Your task to perform on an android device: all mails in gmail Image 0: 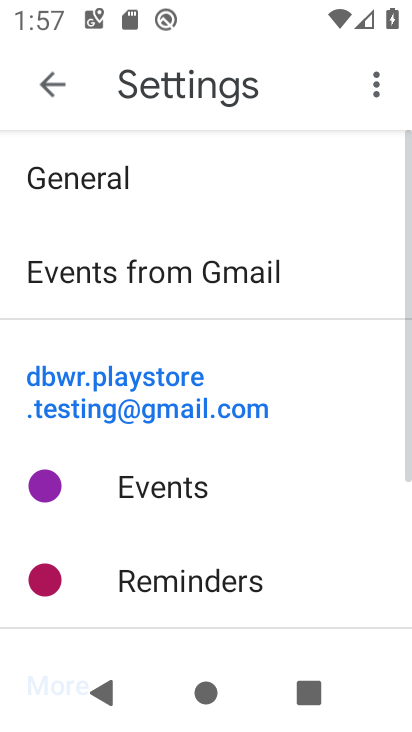
Step 0: press home button
Your task to perform on an android device: all mails in gmail Image 1: 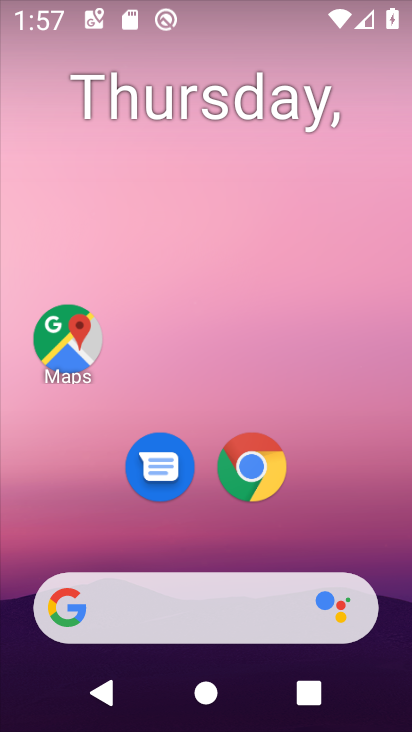
Step 1: drag from (204, 554) to (142, 0)
Your task to perform on an android device: all mails in gmail Image 2: 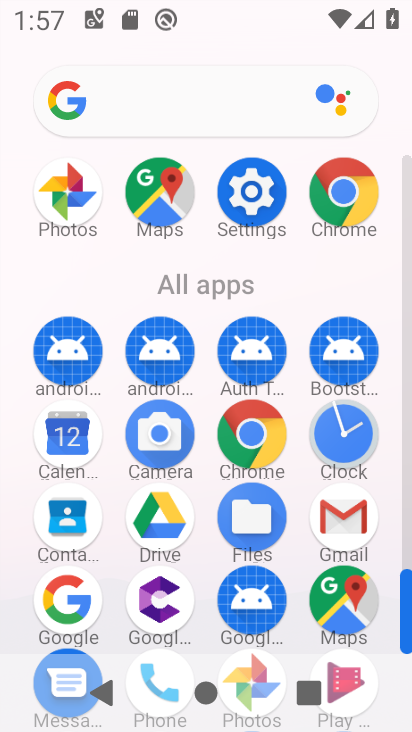
Step 2: click (331, 529)
Your task to perform on an android device: all mails in gmail Image 3: 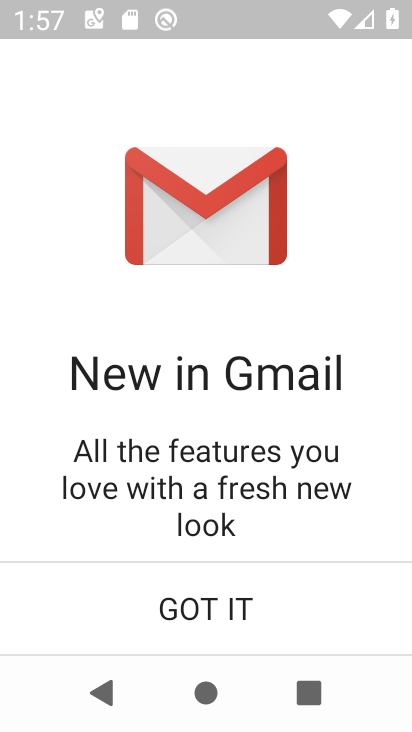
Step 3: click (228, 598)
Your task to perform on an android device: all mails in gmail Image 4: 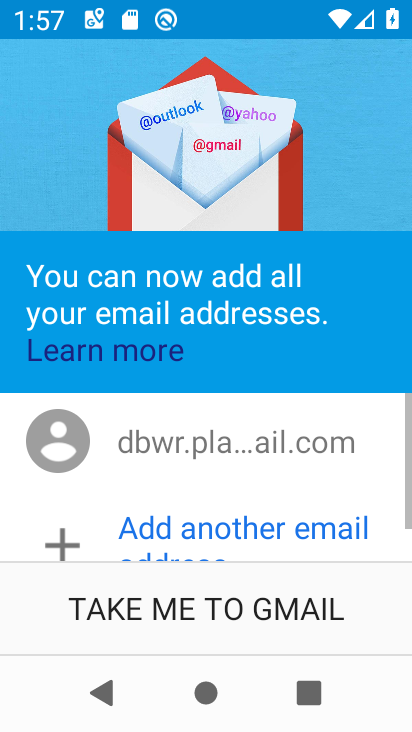
Step 4: click (234, 598)
Your task to perform on an android device: all mails in gmail Image 5: 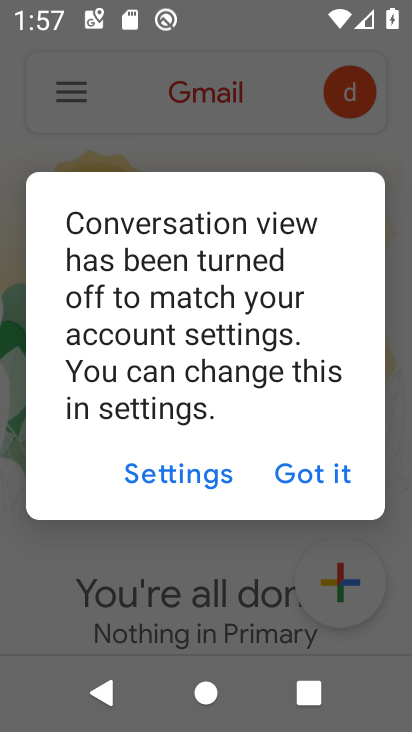
Step 5: click (335, 474)
Your task to perform on an android device: all mails in gmail Image 6: 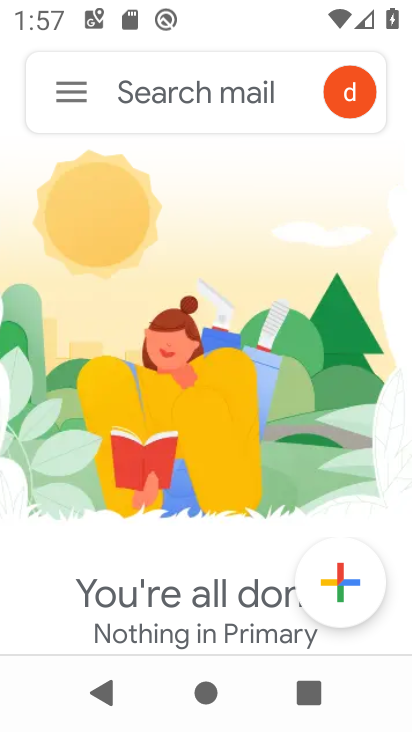
Step 6: click (62, 87)
Your task to perform on an android device: all mails in gmail Image 7: 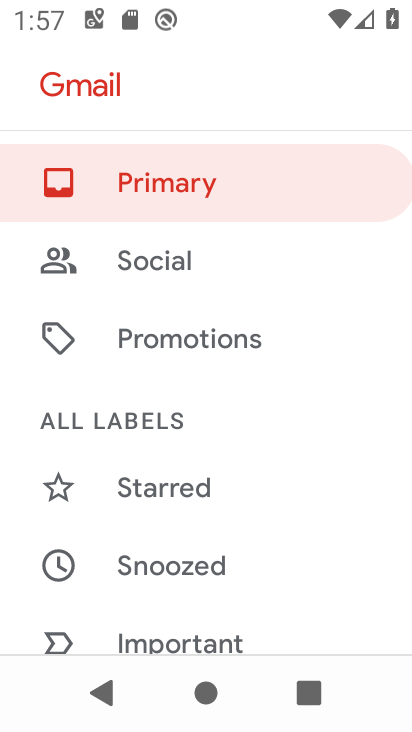
Step 7: drag from (173, 500) to (151, 235)
Your task to perform on an android device: all mails in gmail Image 8: 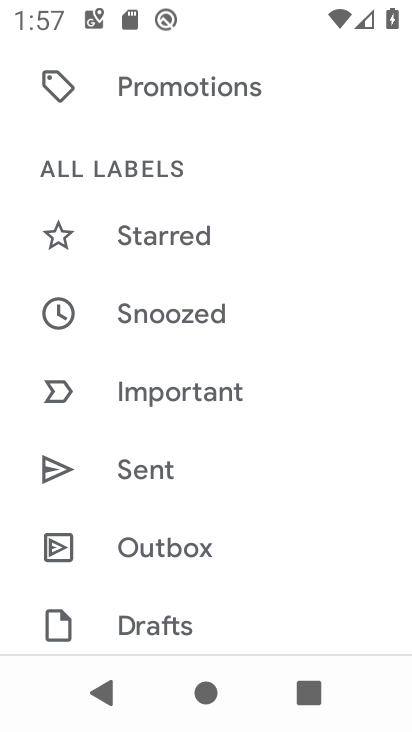
Step 8: drag from (165, 509) to (139, 262)
Your task to perform on an android device: all mails in gmail Image 9: 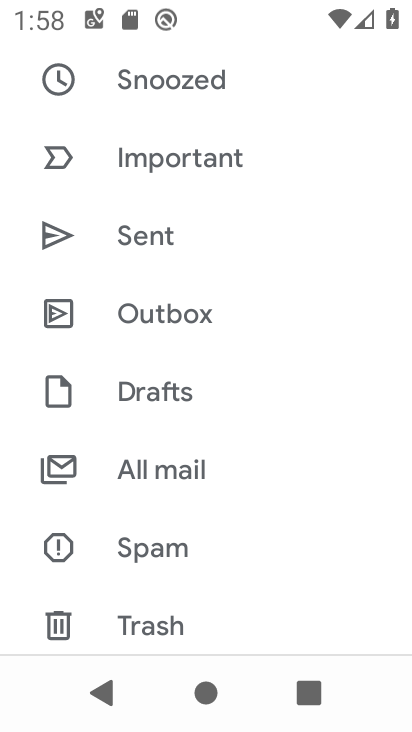
Step 9: click (158, 461)
Your task to perform on an android device: all mails in gmail Image 10: 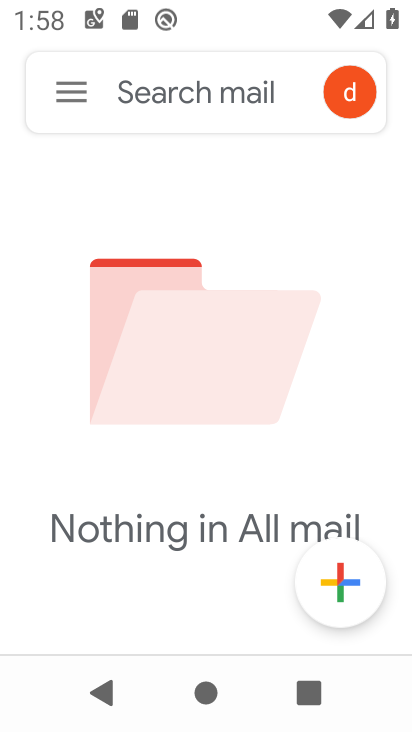
Step 10: task complete